Your task to perform on an android device: Go to calendar. Show me events next week Image 0: 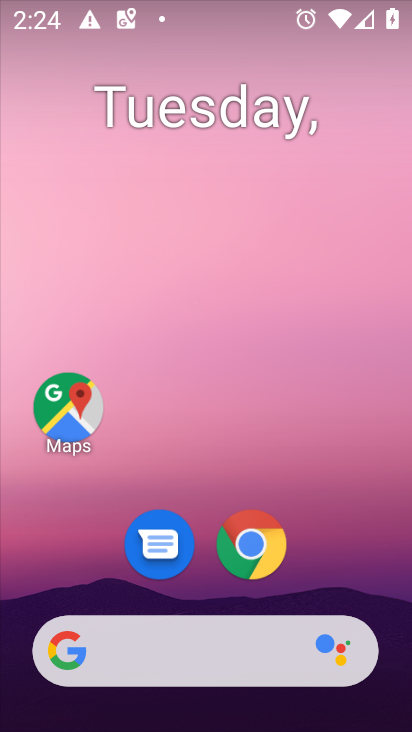
Step 0: drag from (359, 532) to (205, 44)
Your task to perform on an android device: Go to calendar. Show me events next week Image 1: 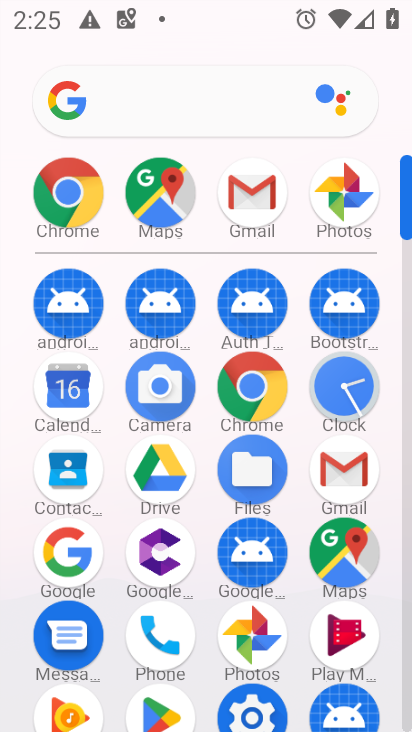
Step 1: click (74, 408)
Your task to perform on an android device: Go to calendar. Show me events next week Image 2: 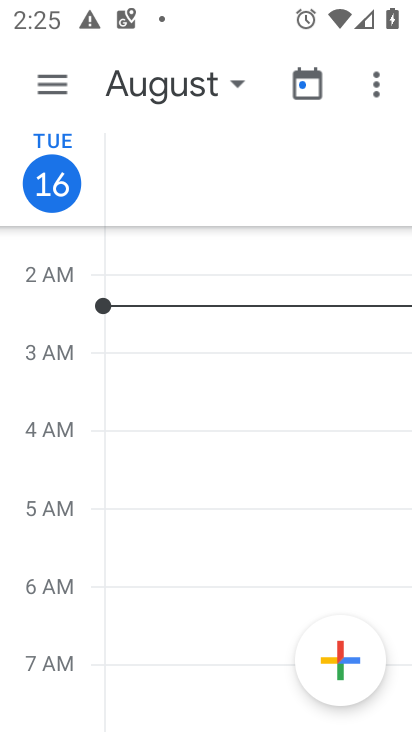
Step 2: click (126, 84)
Your task to perform on an android device: Go to calendar. Show me events next week Image 3: 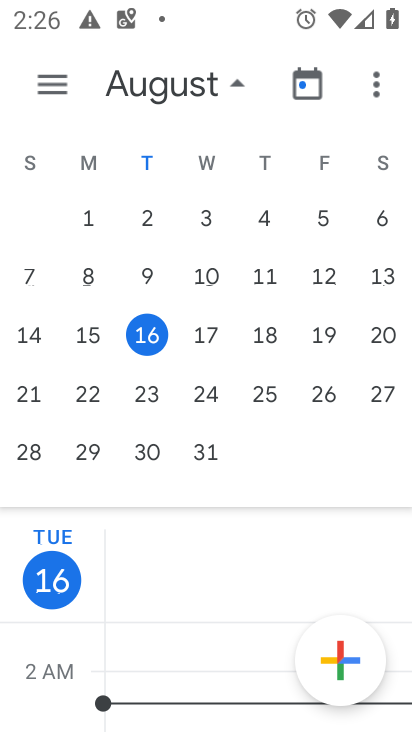
Step 3: click (144, 398)
Your task to perform on an android device: Go to calendar. Show me events next week Image 4: 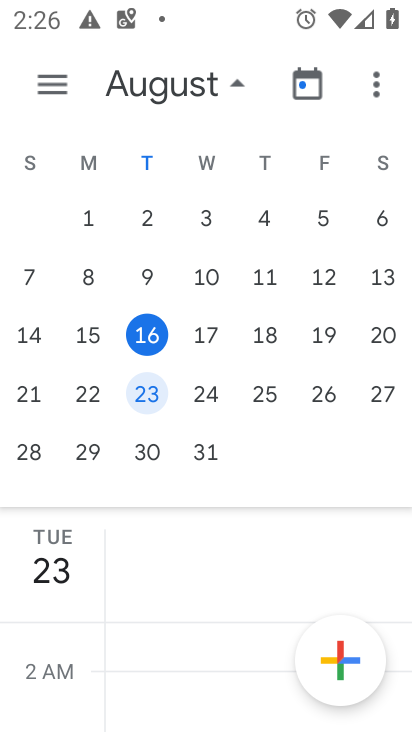
Step 4: click (46, 77)
Your task to perform on an android device: Go to calendar. Show me events next week Image 5: 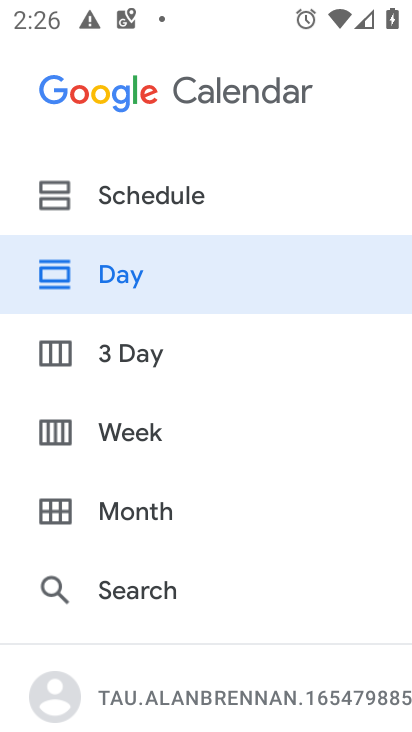
Step 5: click (151, 445)
Your task to perform on an android device: Go to calendar. Show me events next week Image 6: 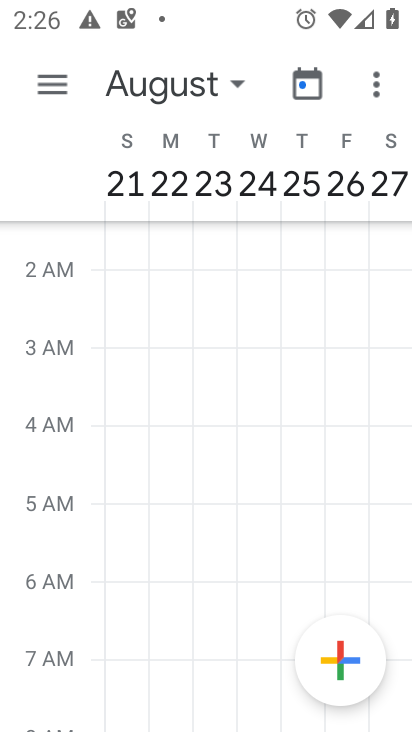
Step 6: task complete